Your task to perform on an android device: Open maps Image 0: 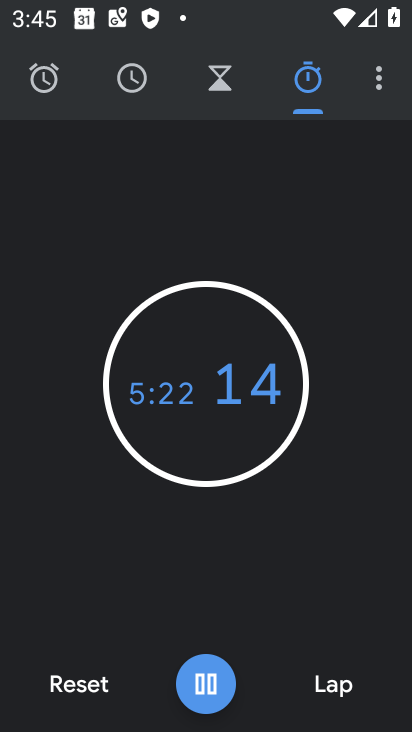
Step 0: press home button
Your task to perform on an android device: Open maps Image 1: 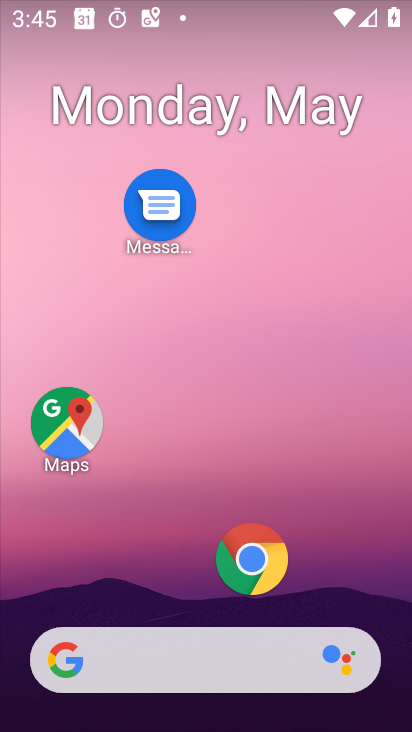
Step 1: click (58, 418)
Your task to perform on an android device: Open maps Image 2: 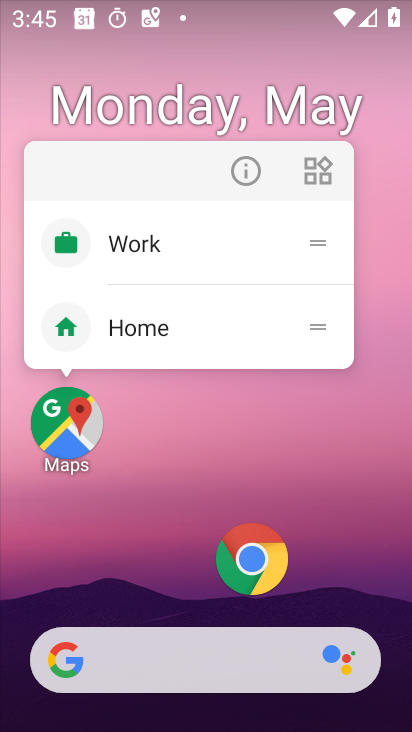
Step 2: click (251, 174)
Your task to perform on an android device: Open maps Image 3: 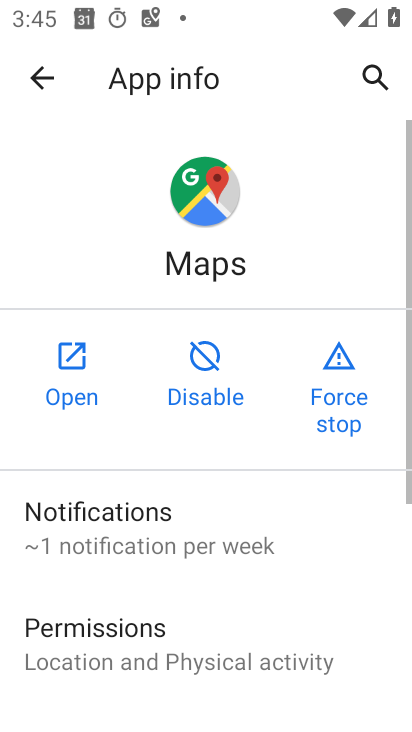
Step 3: click (86, 370)
Your task to perform on an android device: Open maps Image 4: 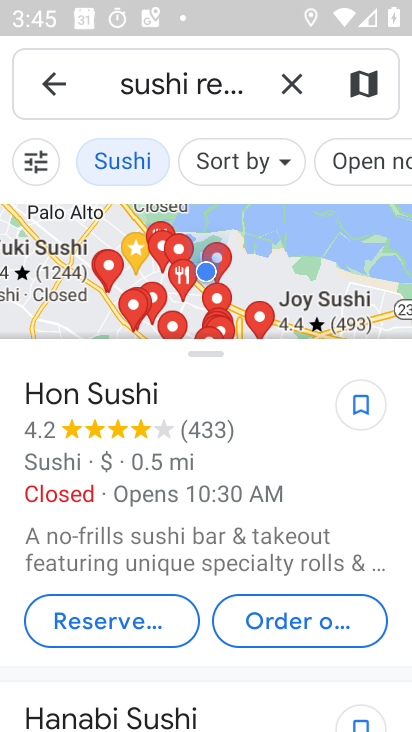
Step 4: task complete